Your task to perform on an android device: find photos in the google photos app Image 0: 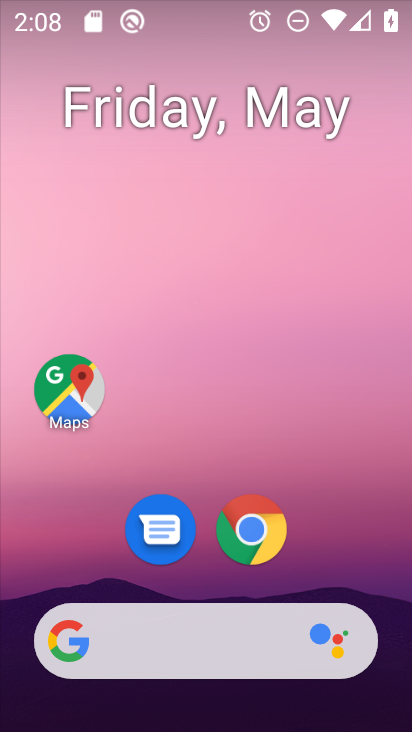
Step 0: drag from (1, 187) to (409, 238)
Your task to perform on an android device: find photos in the google photos app Image 1: 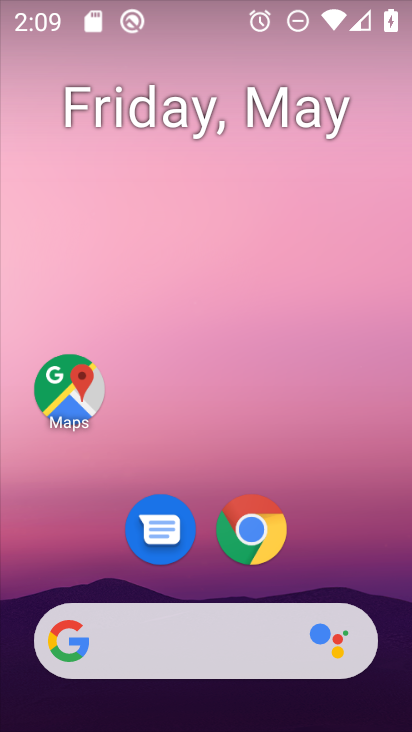
Step 1: drag from (4, 274) to (332, 291)
Your task to perform on an android device: find photos in the google photos app Image 2: 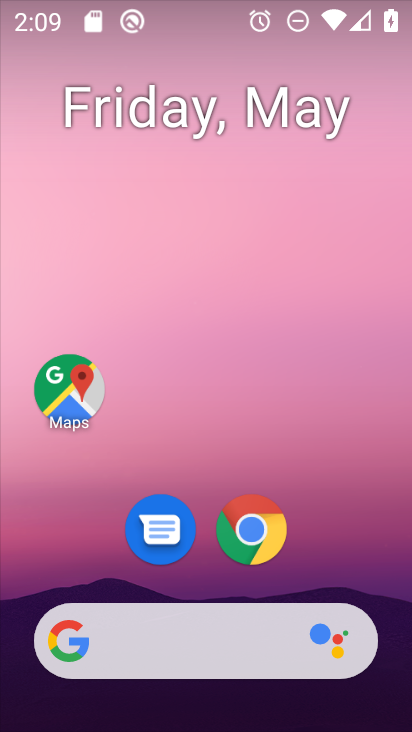
Step 2: drag from (398, 693) to (371, 162)
Your task to perform on an android device: find photos in the google photos app Image 3: 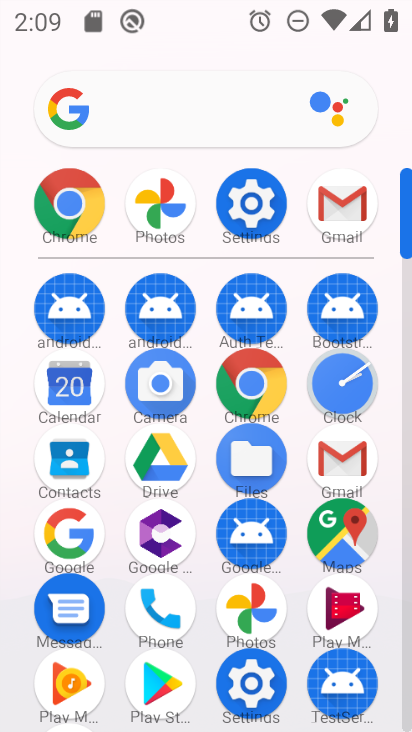
Step 3: click (249, 602)
Your task to perform on an android device: find photos in the google photos app Image 4: 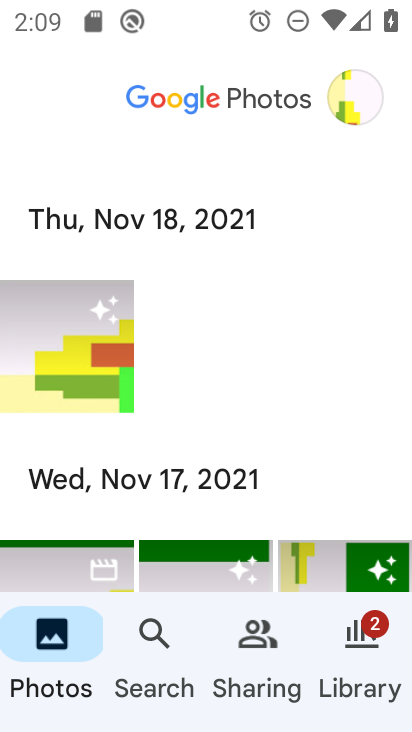
Step 4: click (84, 369)
Your task to perform on an android device: find photos in the google photos app Image 5: 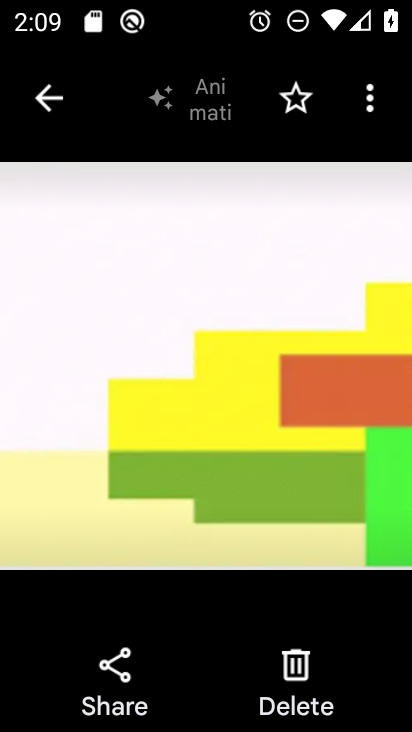
Step 5: task complete